Your task to perform on an android device: Search for Mexican restaurants on Maps Image 0: 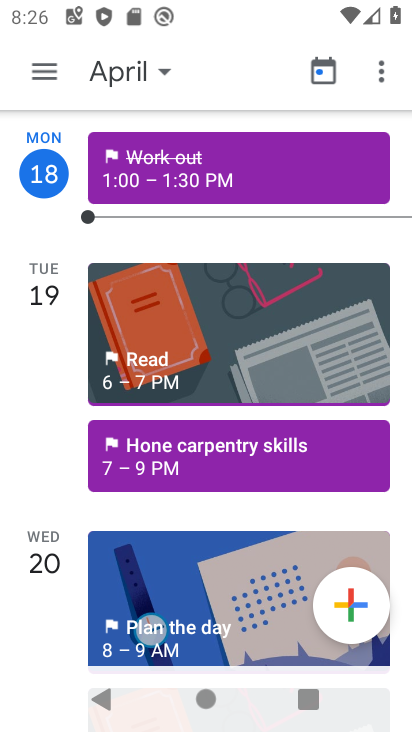
Step 0: press home button
Your task to perform on an android device: Search for Mexican restaurants on Maps Image 1: 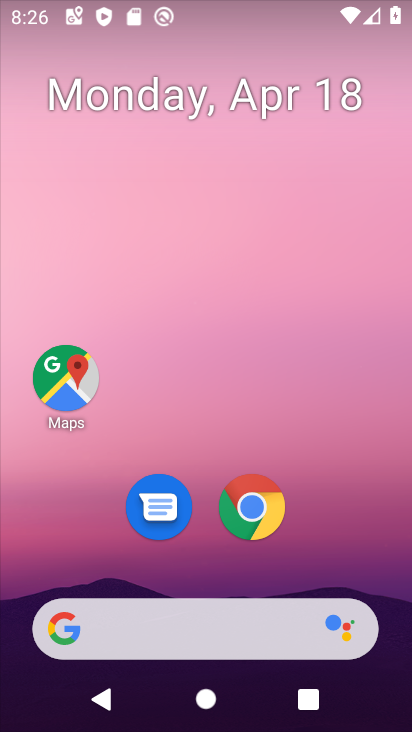
Step 1: click (71, 380)
Your task to perform on an android device: Search for Mexican restaurants on Maps Image 2: 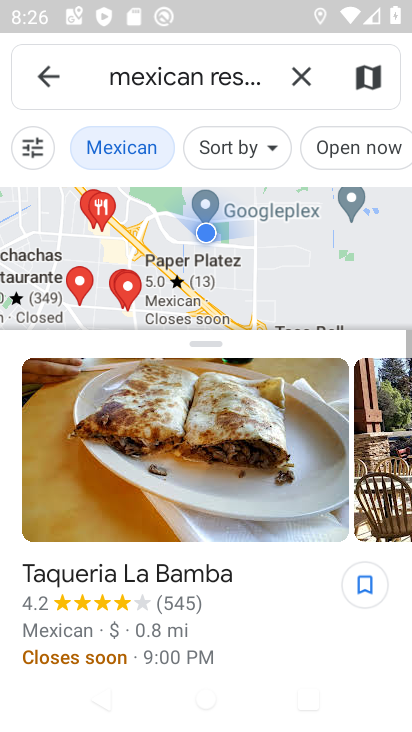
Step 2: task complete